Your task to perform on an android device: open app "Instagram" (install if not already installed) Image 0: 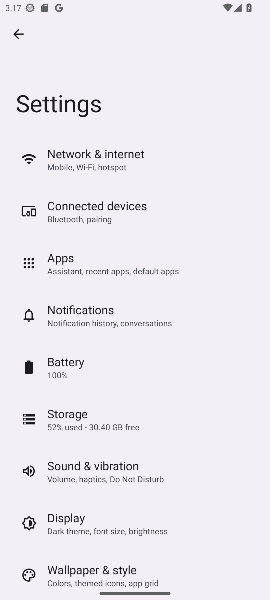
Step 0: press home button
Your task to perform on an android device: open app "Instagram" (install if not already installed) Image 1: 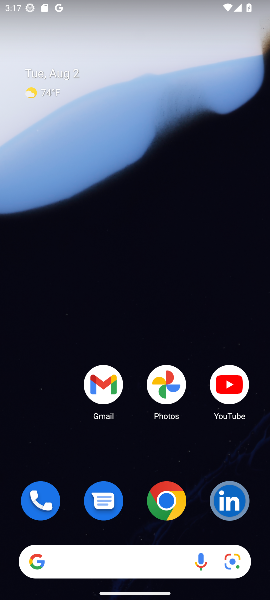
Step 1: drag from (140, 457) to (152, 10)
Your task to perform on an android device: open app "Instagram" (install if not already installed) Image 2: 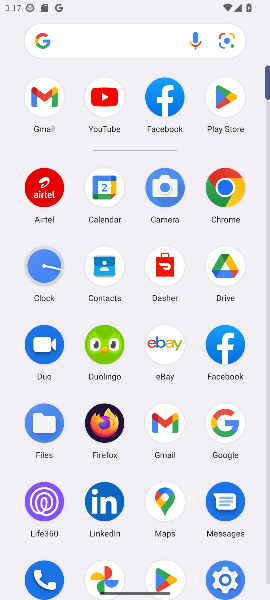
Step 2: click (219, 96)
Your task to perform on an android device: open app "Instagram" (install if not already installed) Image 3: 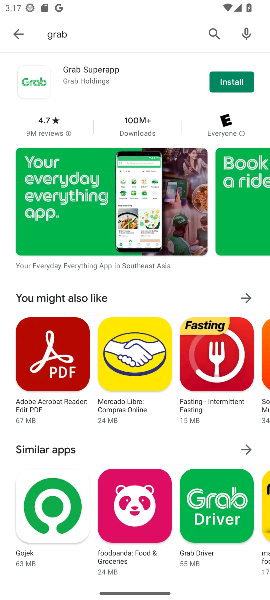
Step 3: click (212, 31)
Your task to perform on an android device: open app "Instagram" (install if not already installed) Image 4: 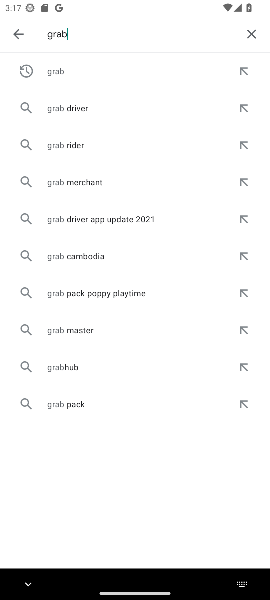
Step 4: click (254, 39)
Your task to perform on an android device: open app "Instagram" (install if not already installed) Image 5: 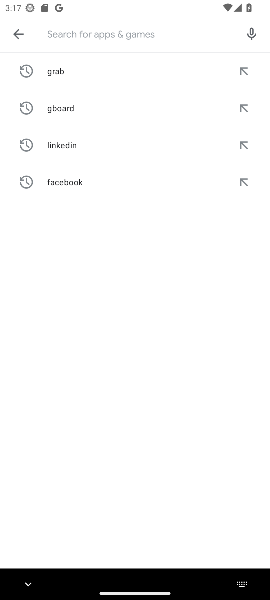
Step 5: type "Instagram"
Your task to perform on an android device: open app "Instagram" (install if not already installed) Image 6: 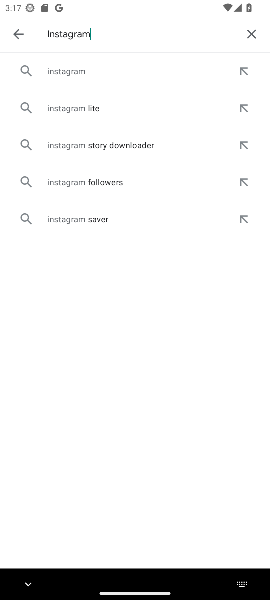
Step 6: click (70, 73)
Your task to perform on an android device: open app "Instagram" (install if not already installed) Image 7: 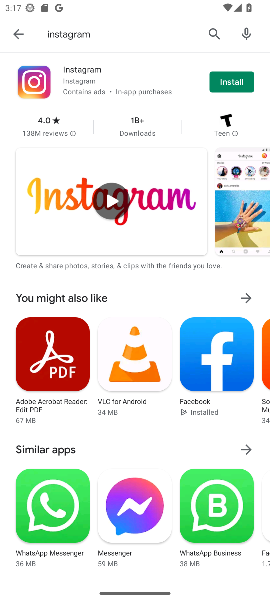
Step 7: click (229, 86)
Your task to perform on an android device: open app "Instagram" (install if not already installed) Image 8: 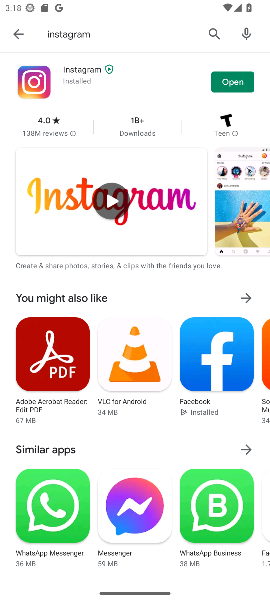
Step 8: click (225, 89)
Your task to perform on an android device: open app "Instagram" (install if not already installed) Image 9: 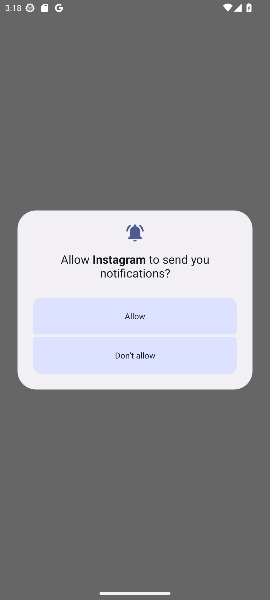
Step 9: task complete